Your task to perform on an android device: Open calendar and show me the second week of next month Image 0: 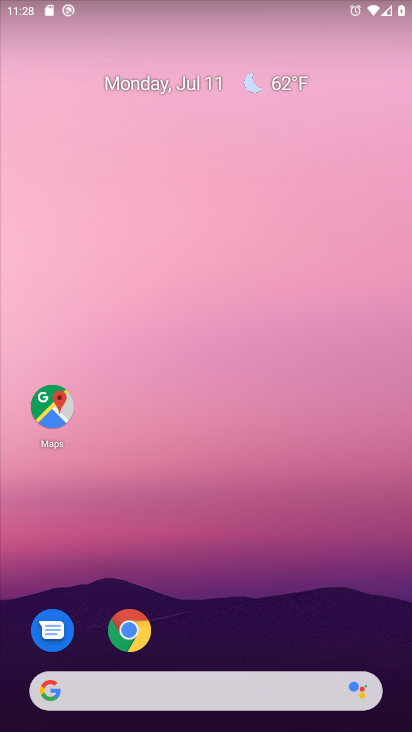
Step 0: drag from (347, 613) to (165, 21)
Your task to perform on an android device: Open calendar and show me the second week of next month Image 1: 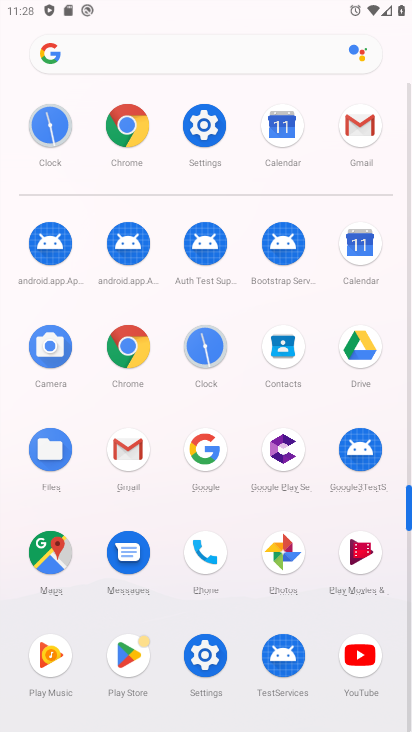
Step 1: click (283, 131)
Your task to perform on an android device: Open calendar and show me the second week of next month Image 2: 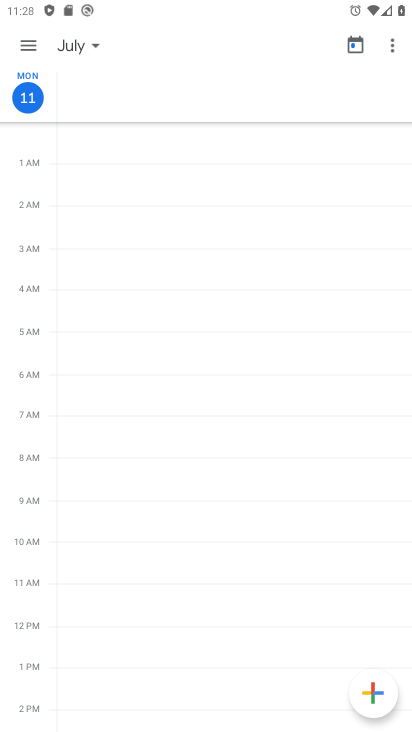
Step 2: click (31, 48)
Your task to perform on an android device: Open calendar and show me the second week of next month Image 3: 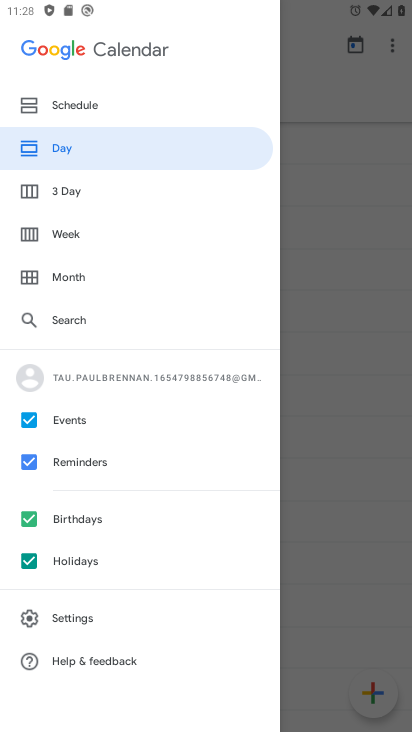
Step 3: click (31, 265)
Your task to perform on an android device: Open calendar and show me the second week of next month Image 4: 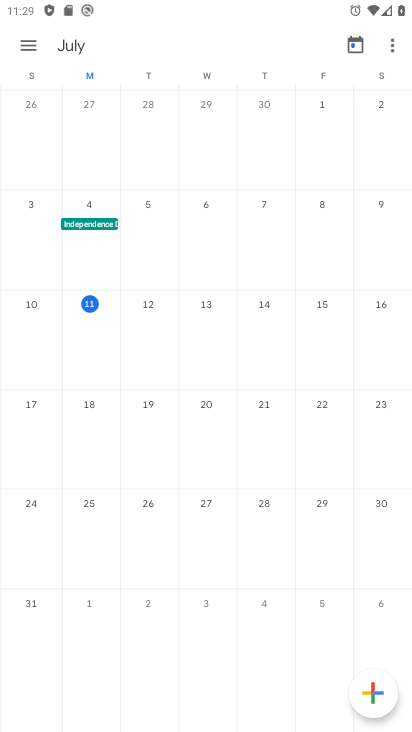
Step 4: drag from (375, 357) to (3, 316)
Your task to perform on an android device: Open calendar and show me the second week of next month Image 5: 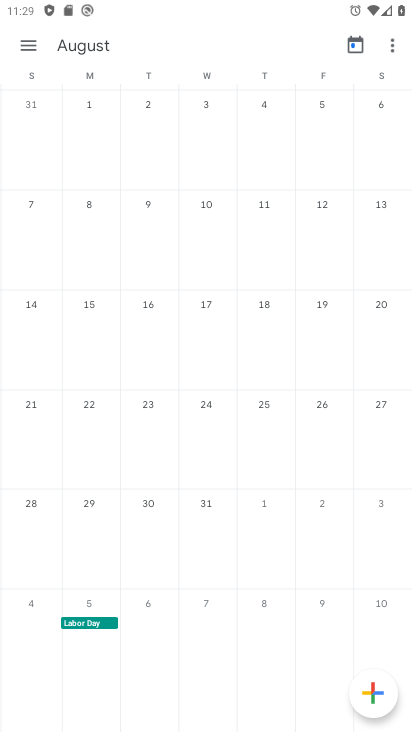
Step 5: click (38, 310)
Your task to perform on an android device: Open calendar and show me the second week of next month Image 6: 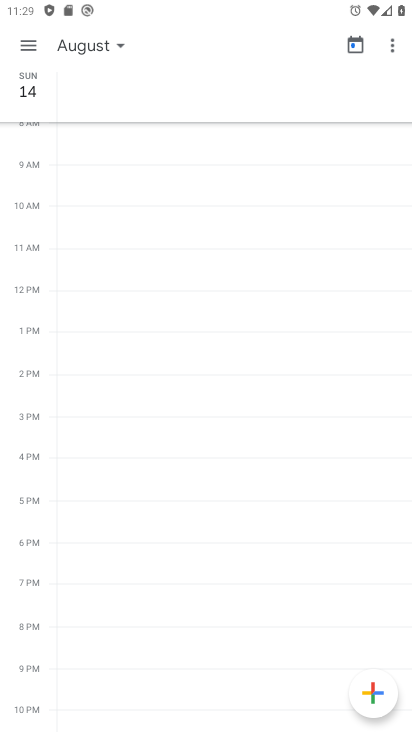
Step 6: click (32, 43)
Your task to perform on an android device: Open calendar and show me the second week of next month Image 7: 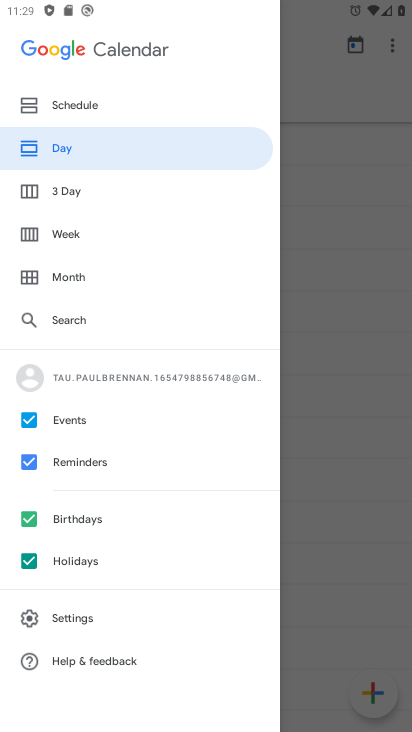
Step 7: click (30, 232)
Your task to perform on an android device: Open calendar and show me the second week of next month Image 8: 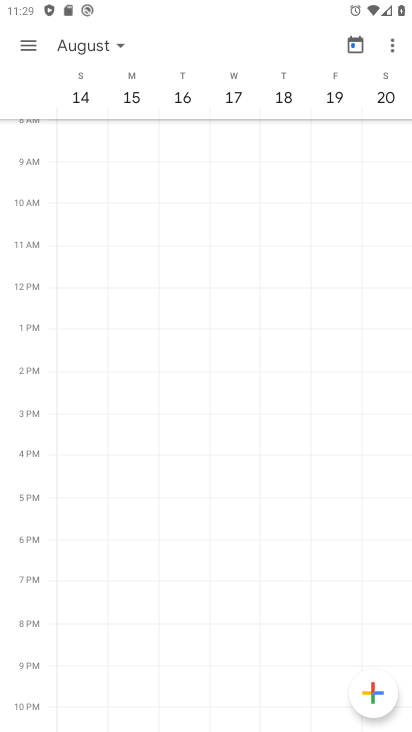
Step 8: task complete